Your task to perform on an android device: toggle notification dots Image 0: 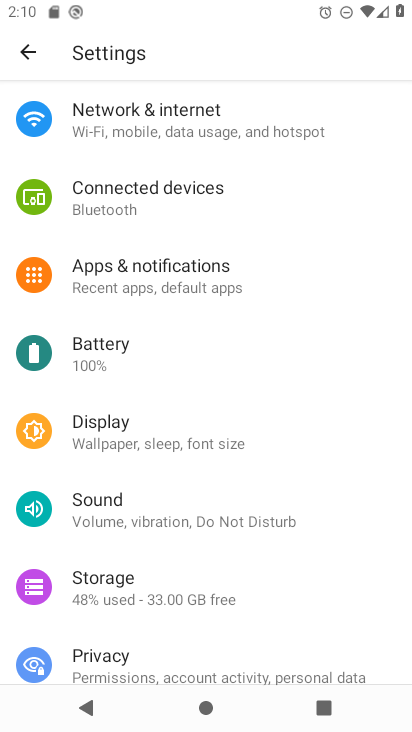
Step 0: click (184, 275)
Your task to perform on an android device: toggle notification dots Image 1: 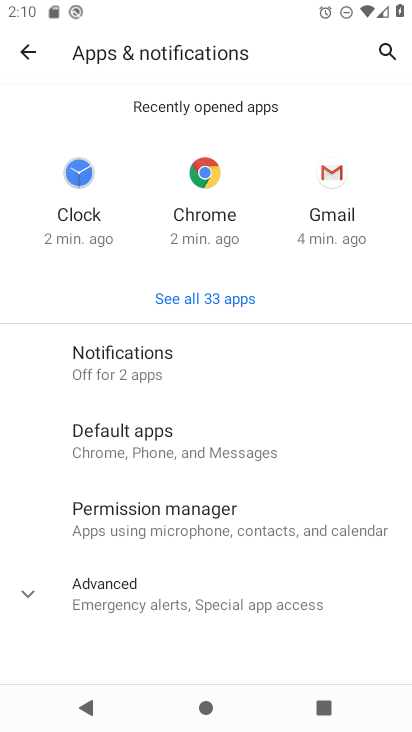
Step 1: click (170, 351)
Your task to perform on an android device: toggle notification dots Image 2: 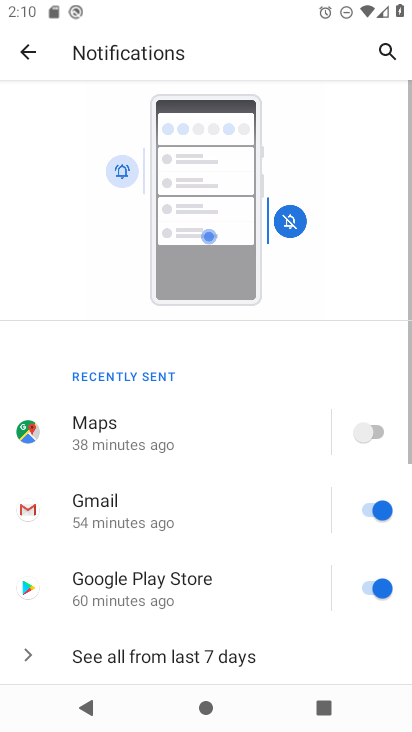
Step 2: drag from (198, 628) to (140, 187)
Your task to perform on an android device: toggle notification dots Image 3: 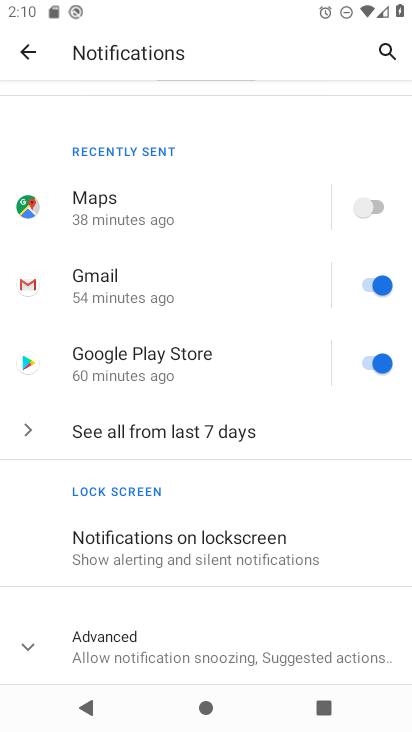
Step 3: click (185, 667)
Your task to perform on an android device: toggle notification dots Image 4: 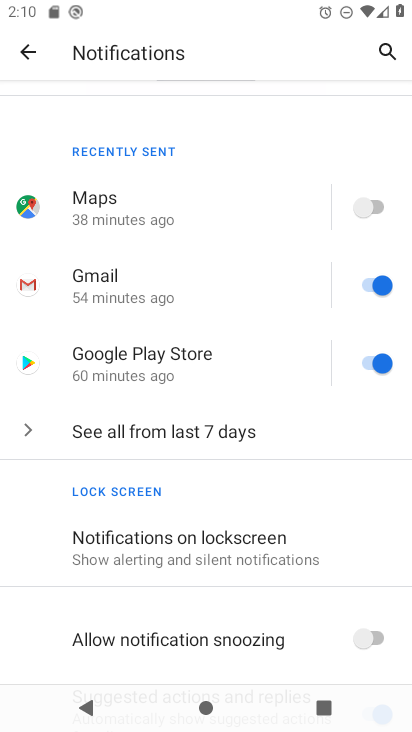
Step 4: drag from (185, 646) to (151, 333)
Your task to perform on an android device: toggle notification dots Image 5: 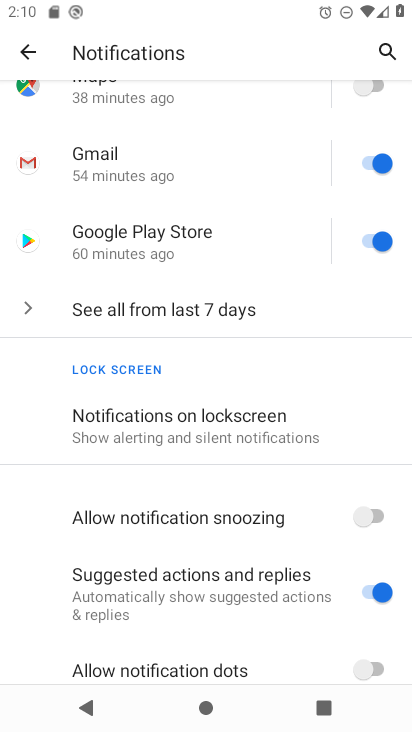
Step 5: click (232, 671)
Your task to perform on an android device: toggle notification dots Image 6: 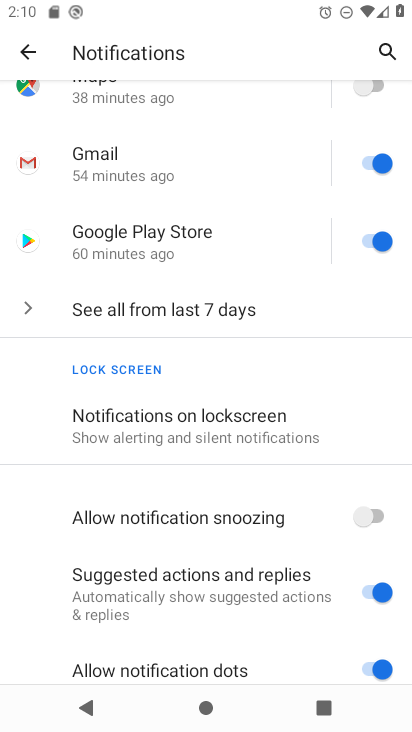
Step 6: task complete